Your task to perform on an android device: set the stopwatch Image 0: 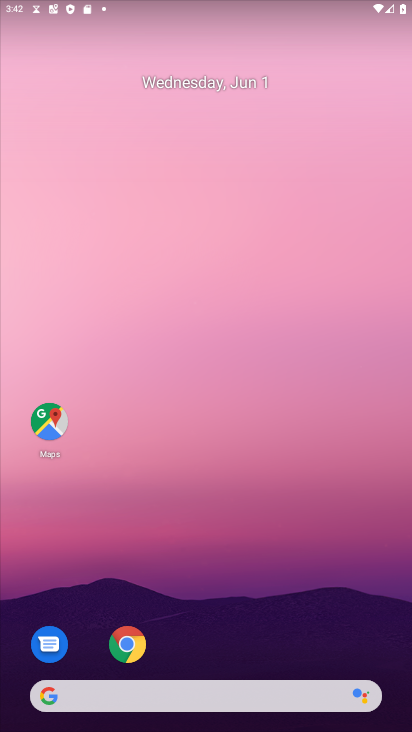
Step 0: press home button
Your task to perform on an android device: set the stopwatch Image 1: 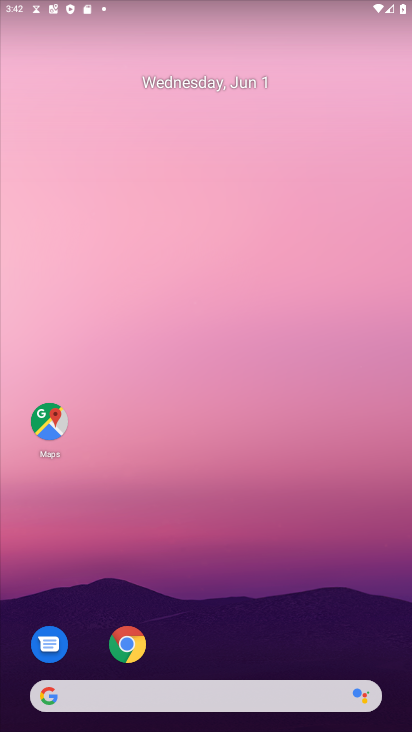
Step 1: drag from (323, 587) to (349, 60)
Your task to perform on an android device: set the stopwatch Image 2: 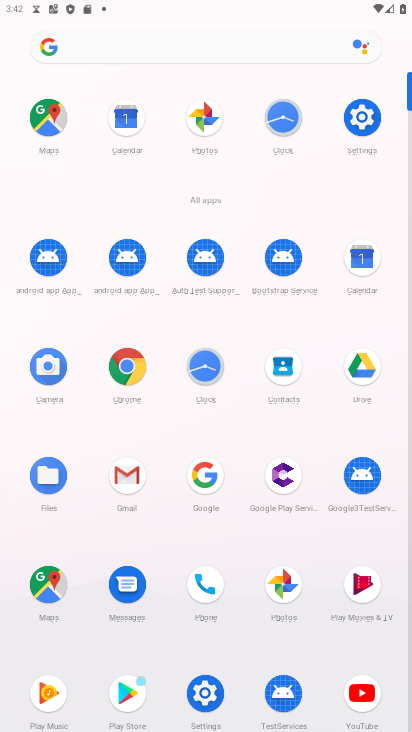
Step 2: click (291, 106)
Your task to perform on an android device: set the stopwatch Image 3: 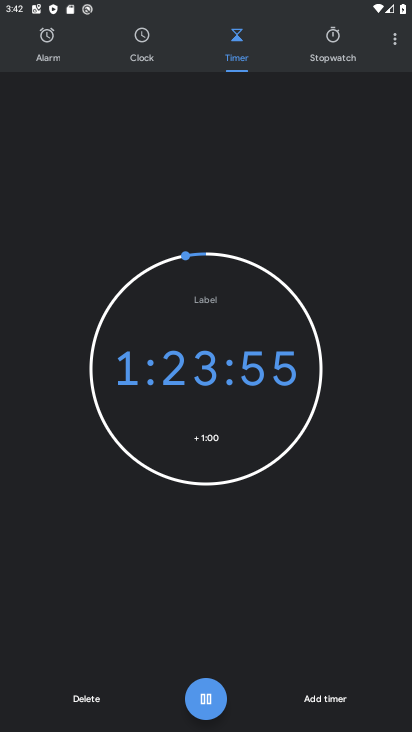
Step 3: click (330, 47)
Your task to perform on an android device: set the stopwatch Image 4: 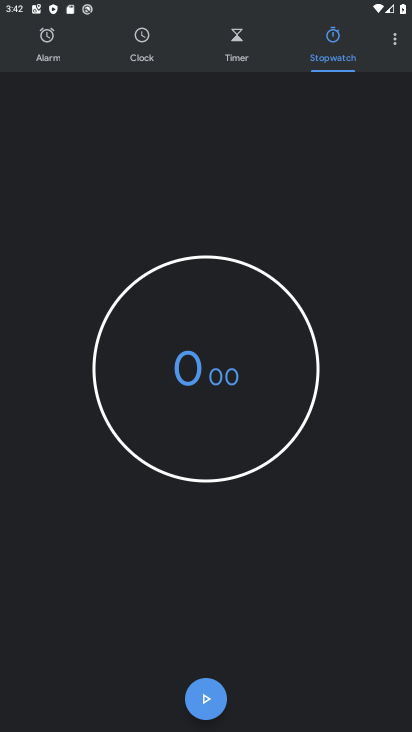
Step 4: click (207, 694)
Your task to perform on an android device: set the stopwatch Image 5: 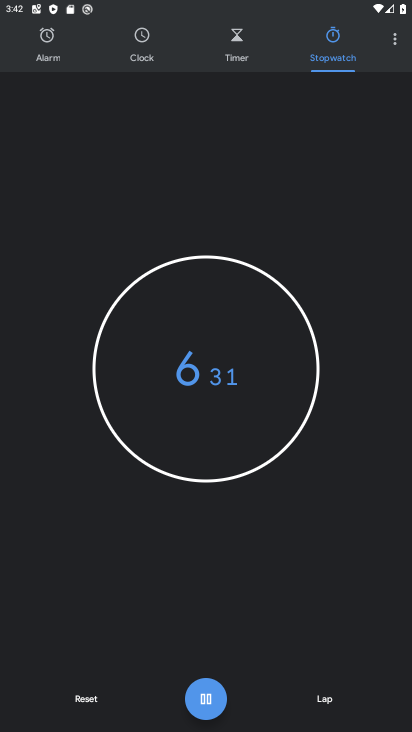
Step 5: click (204, 699)
Your task to perform on an android device: set the stopwatch Image 6: 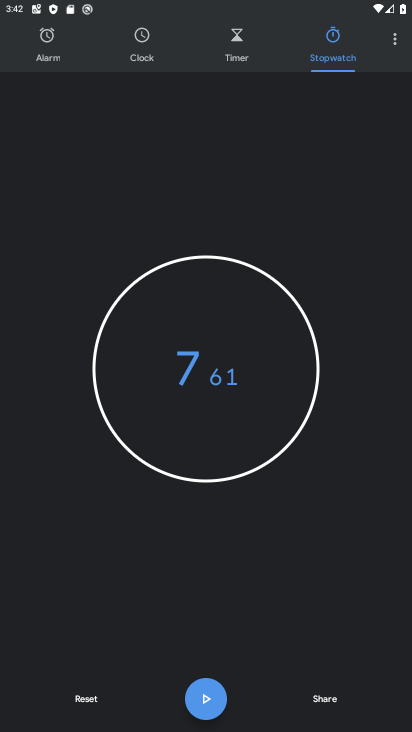
Step 6: task complete